Your task to perform on an android device: uninstall "McDonald's" Image 0: 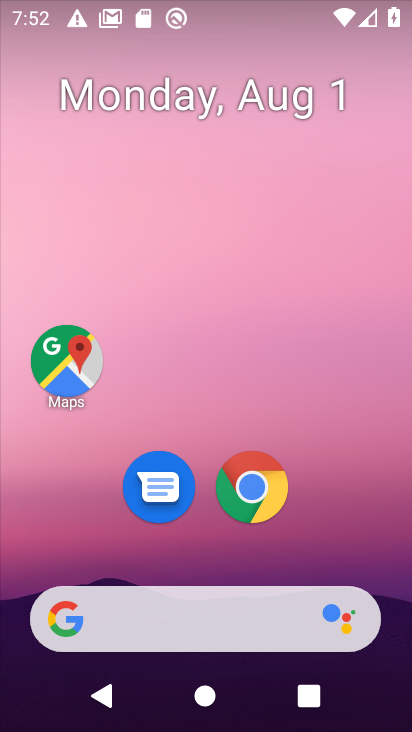
Step 0: press home button
Your task to perform on an android device: uninstall "McDonald's" Image 1: 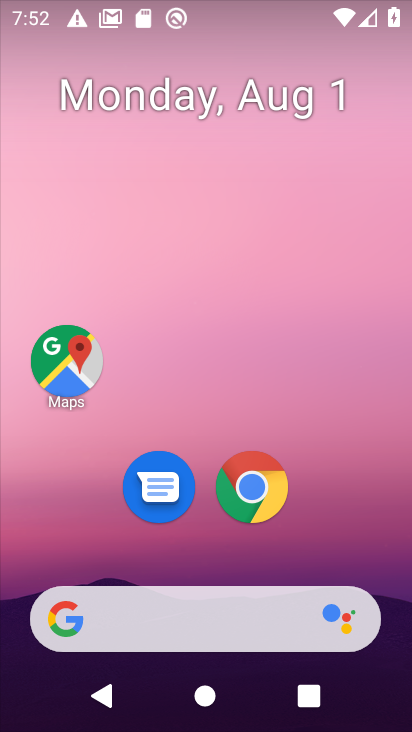
Step 1: drag from (354, 570) to (333, 113)
Your task to perform on an android device: uninstall "McDonald's" Image 2: 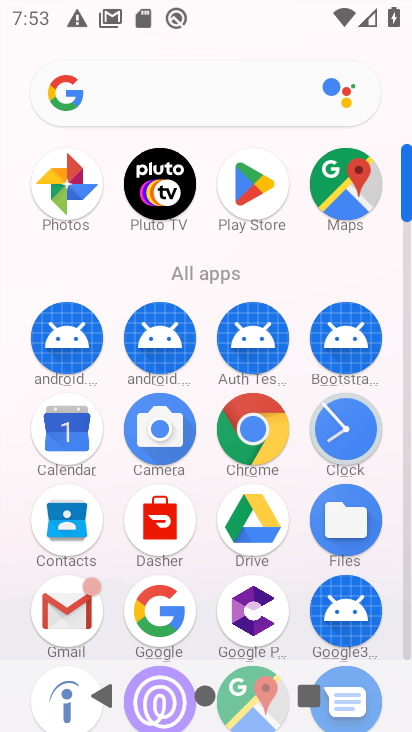
Step 2: click (256, 193)
Your task to perform on an android device: uninstall "McDonald's" Image 3: 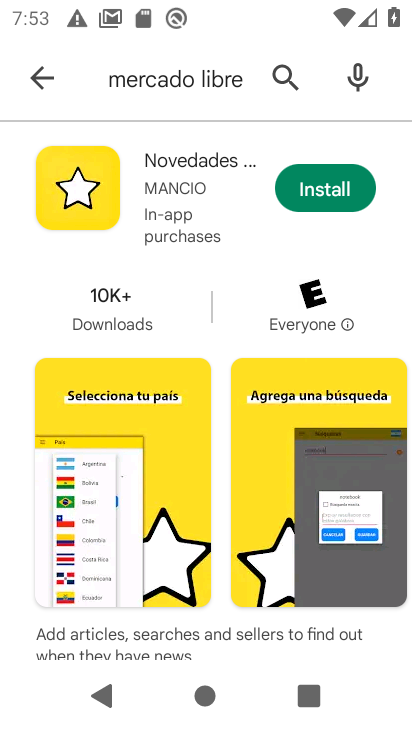
Step 3: click (283, 75)
Your task to perform on an android device: uninstall "McDonald's" Image 4: 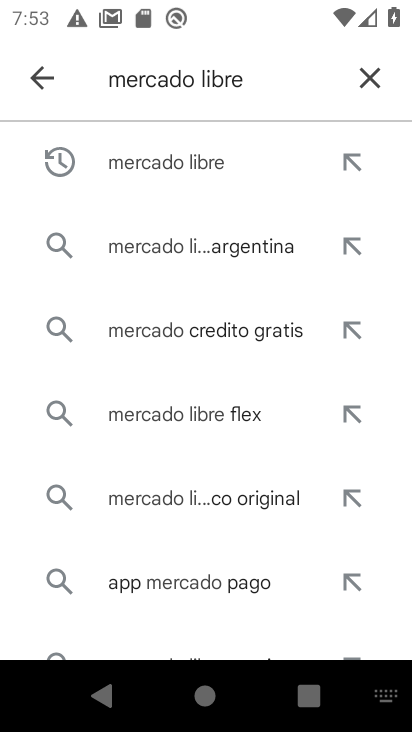
Step 4: click (382, 80)
Your task to perform on an android device: uninstall "McDonald's" Image 5: 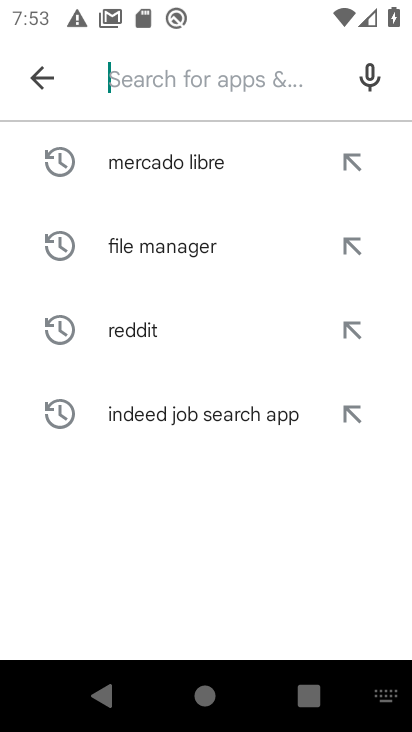
Step 5: type "mcdonalds"
Your task to perform on an android device: uninstall "McDonald's" Image 6: 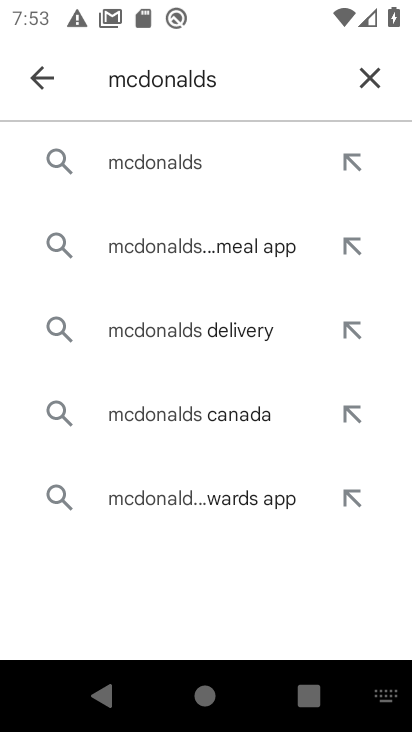
Step 6: click (196, 163)
Your task to perform on an android device: uninstall "McDonald's" Image 7: 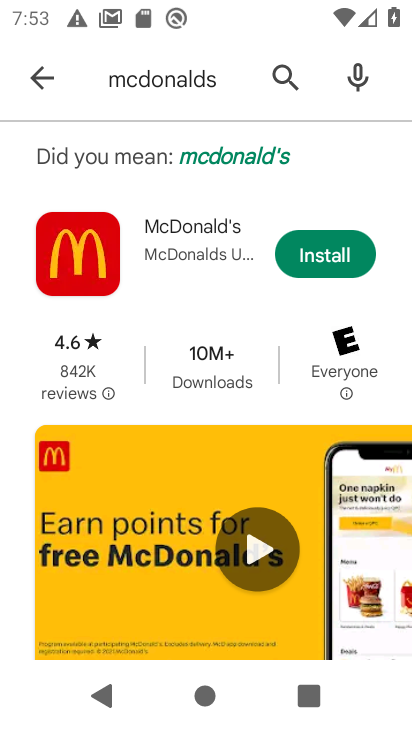
Step 7: task complete